Your task to perform on an android device: Search for jbl charge 4 on newegg.com, select the first entry, and add it to the cart. Image 0: 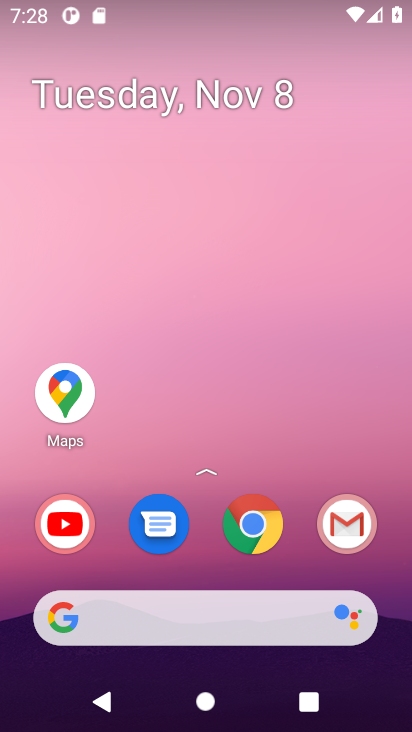
Step 0: click (262, 531)
Your task to perform on an android device: Search for jbl charge 4 on newegg.com, select the first entry, and add it to the cart. Image 1: 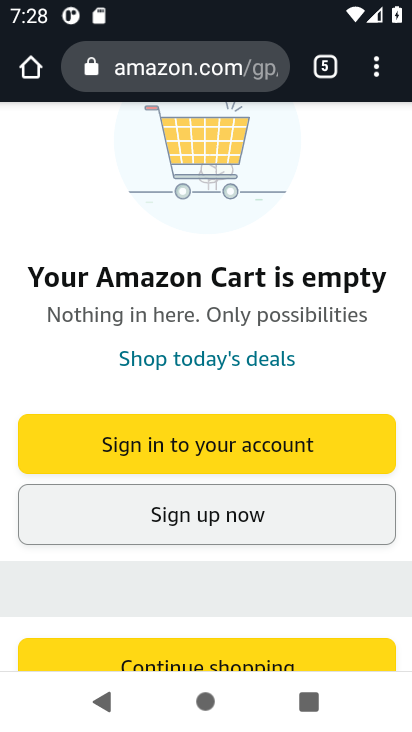
Step 1: click (209, 76)
Your task to perform on an android device: Search for jbl charge 4 on newegg.com, select the first entry, and add it to the cart. Image 2: 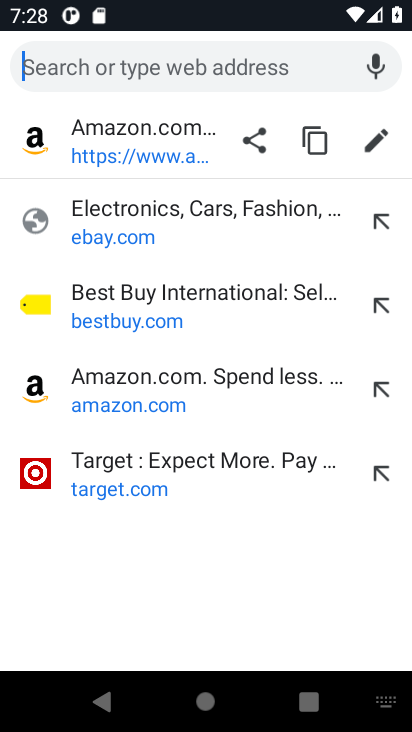
Step 2: type "newegg.com"
Your task to perform on an android device: Search for jbl charge 4 on newegg.com, select the first entry, and add it to the cart. Image 3: 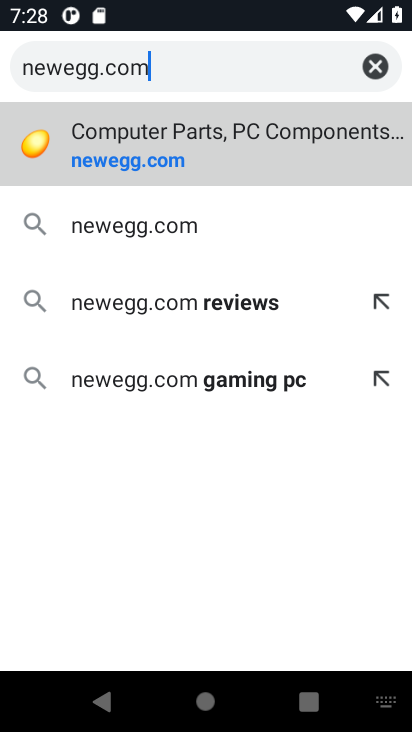
Step 3: click (128, 158)
Your task to perform on an android device: Search for jbl charge 4 on newegg.com, select the first entry, and add it to the cart. Image 4: 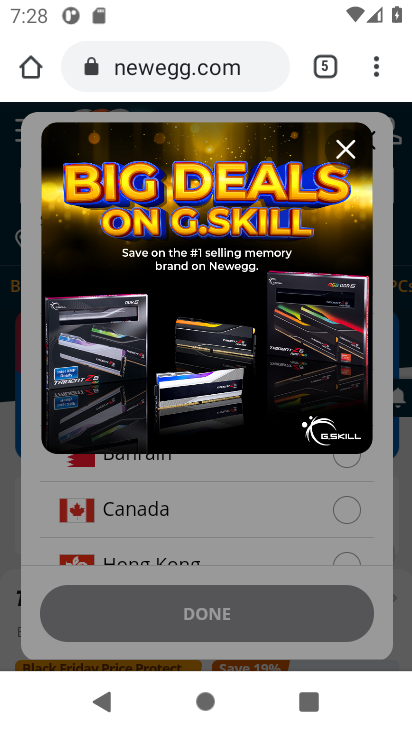
Step 4: click (349, 152)
Your task to perform on an android device: Search for jbl charge 4 on newegg.com, select the first entry, and add it to the cart. Image 5: 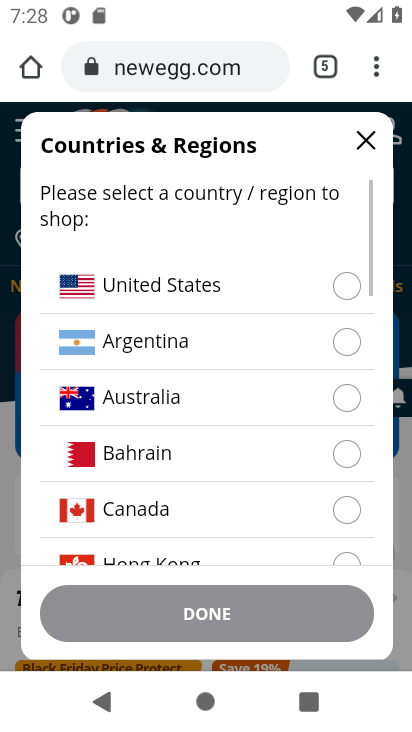
Step 5: click (183, 284)
Your task to perform on an android device: Search for jbl charge 4 on newegg.com, select the first entry, and add it to the cart. Image 6: 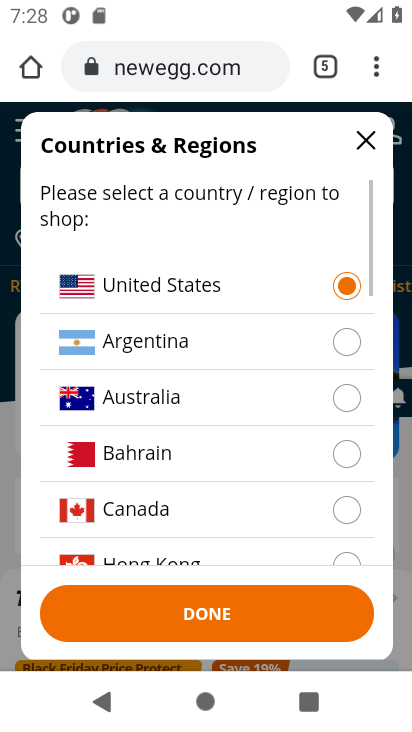
Step 6: click (283, 612)
Your task to perform on an android device: Search for jbl charge 4 on newegg.com, select the first entry, and add it to the cart. Image 7: 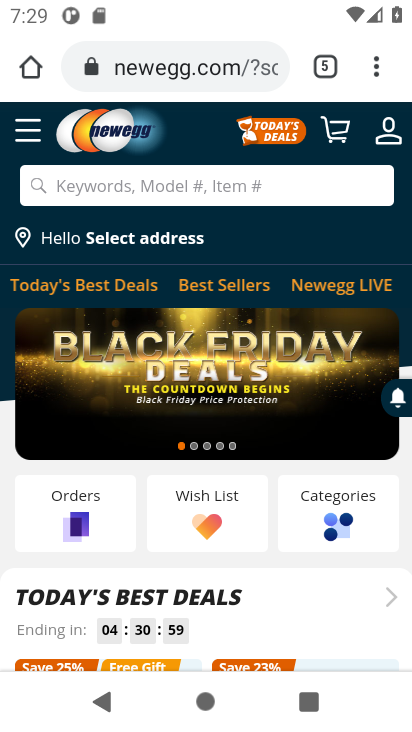
Step 7: click (171, 188)
Your task to perform on an android device: Search for jbl charge 4 on newegg.com, select the first entry, and add it to the cart. Image 8: 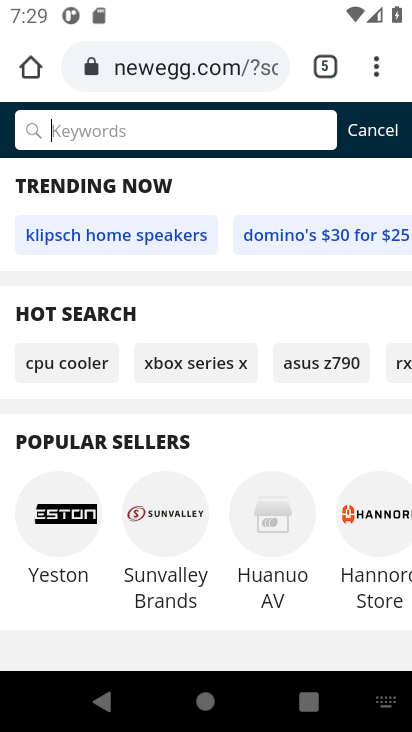
Step 8: type "jbl charge 4"
Your task to perform on an android device: Search for jbl charge 4 on newegg.com, select the first entry, and add it to the cart. Image 9: 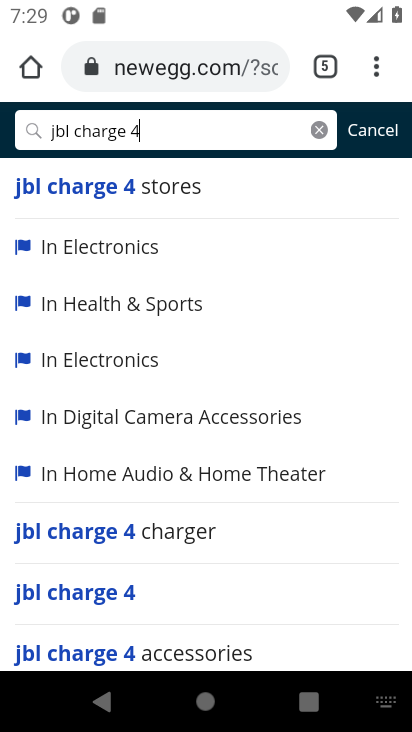
Step 9: click (87, 599)
Your task to perform on an android device: Search for jbl charge 4 on newegg.com, select the first entry, and add it to the cart. Image 10: 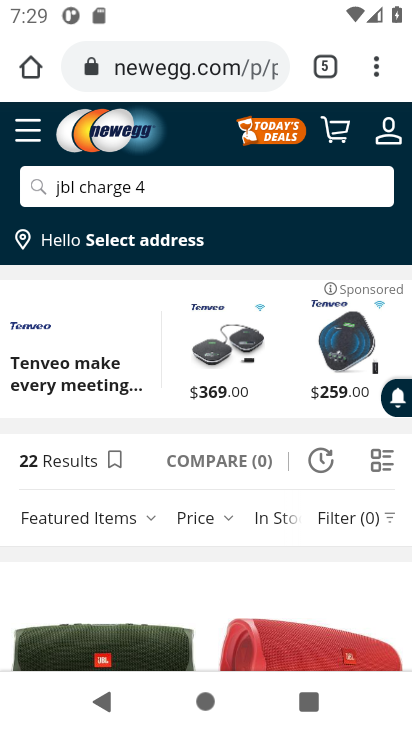
Step 10: drag from (194, 541) to (221, 179)
Your task to perform on an android device: Search for jbl charge 4 on newegg.com, select the first entry, and add it to the cart. Image 11: 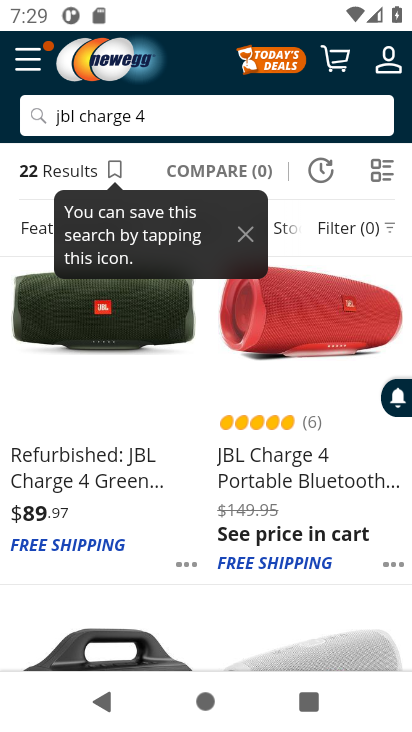
Step 11: click (85, 346)
Your task to perform on an android device: Search for jbl charge 4 on newegg.com, select the first entry, and add it to the cart. Image 12: 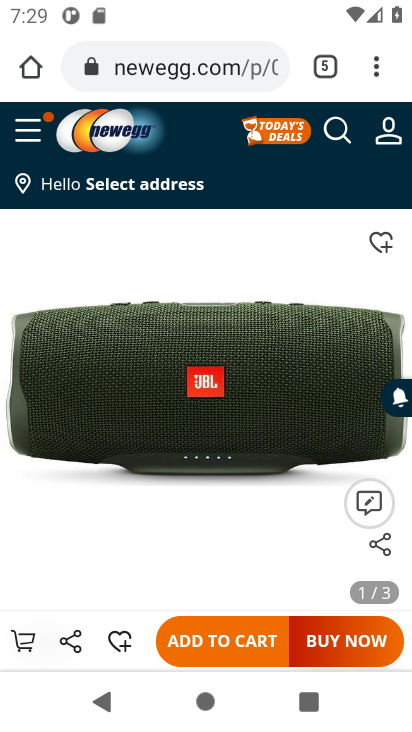
Step 12: click (242, 657)
Your task to perform on an android device: Search for jbl charge 4 on newegg.com, select the first entry, and add it to the cart. Image 13: 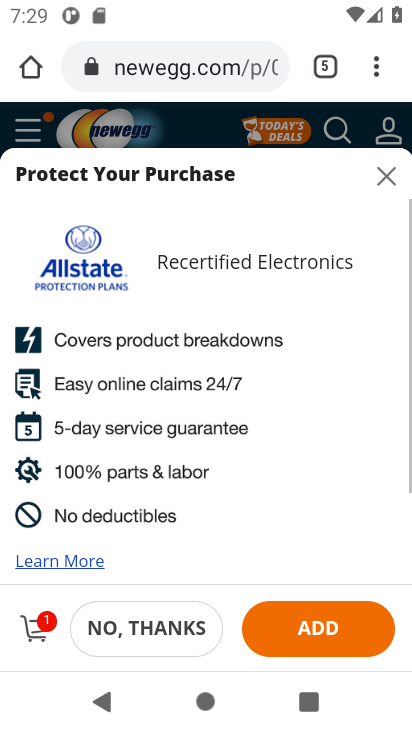
Step 13: task complete